Your task to perform on an android device: turn on location history Image 0: 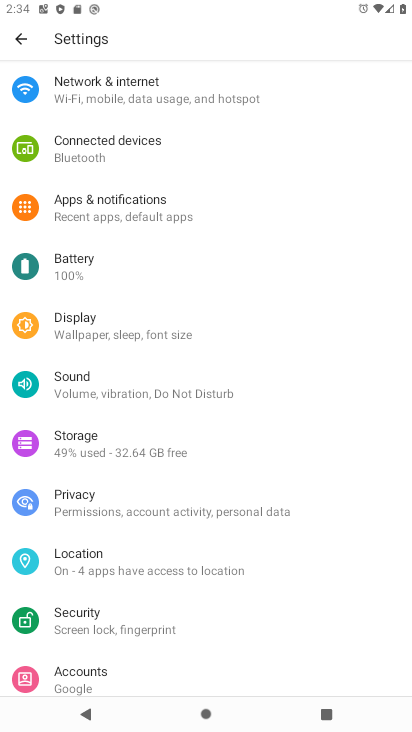
Step 0: click (121, 567)
Your task to perform on an android device: turn on location history Image 1: 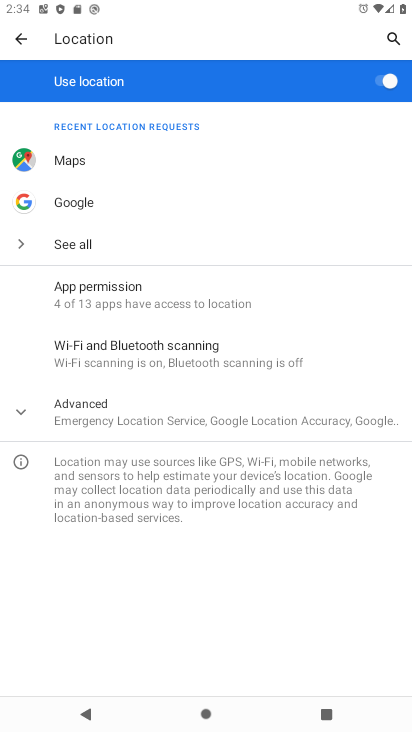
Step 1: click (23, 414)
Your task to perform on an android device: turn on location history Image 2: 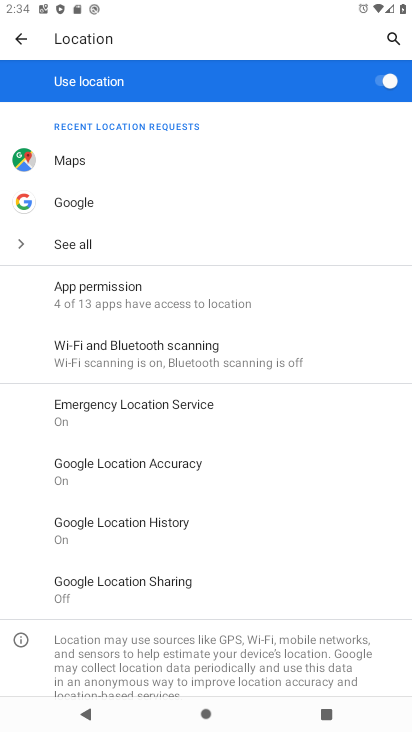
Step 2: click (90, 528)
Your task to perform on an android device: turn on location history Image 3: 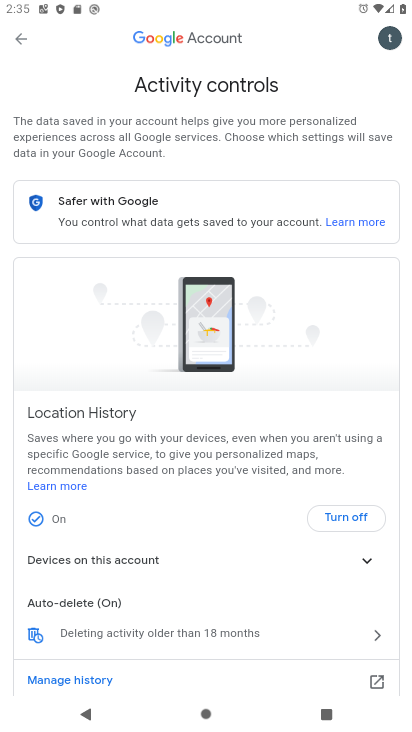
Step 3: task complete